Your task to perform on an android device: find which apps use the phone's location Image 0: 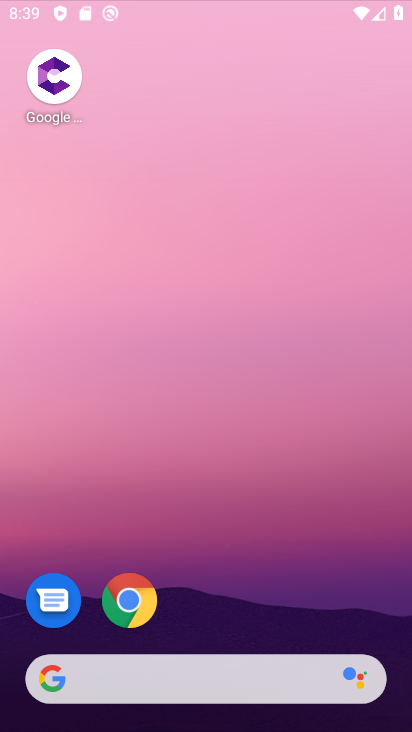
Step 0: press home button
Your task to perform on an android device: find which apps use the phone's location Image 1: 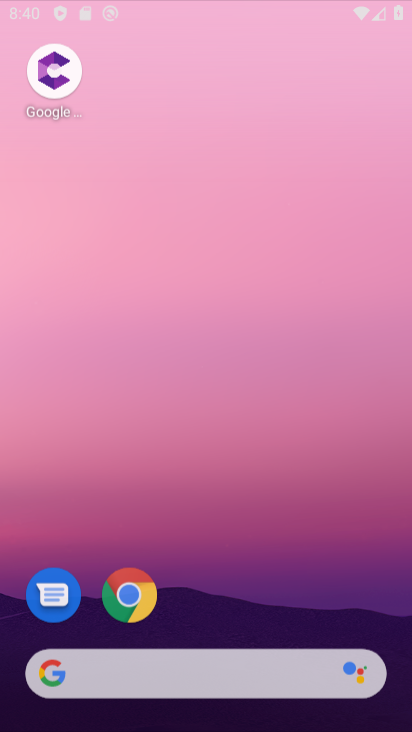
Step 1: click (134, 607)
Your task to perform on an android device: find which apps use the phone's location Image 2: 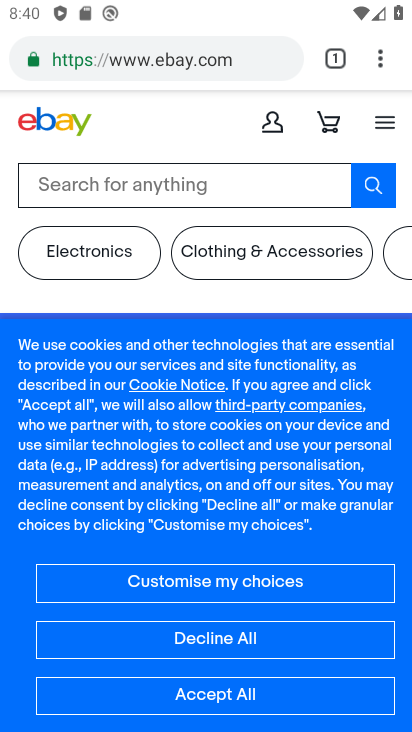
Step 2: press home button
Your task to perform on an android device: find which apps use the phone's location Image 3: 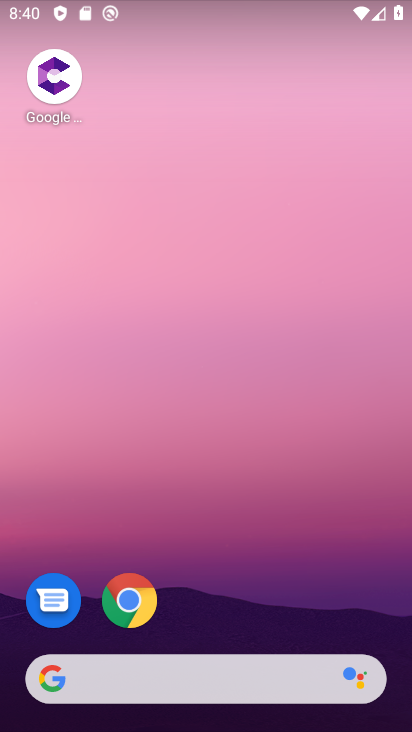
Step 3: drag from (194, 609) to (383, 40)
Your task to perform on an android device: find which apps use the phone's location Image 4: 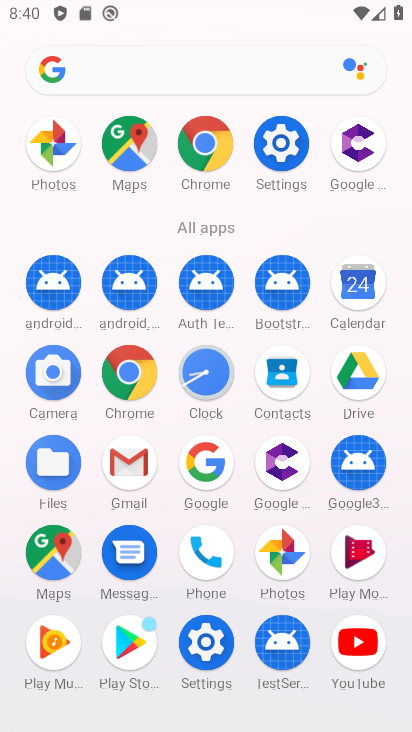
Step 4: click (276, 137)
Your task to perform on an android device: find which apps use the phone's location Image 5: 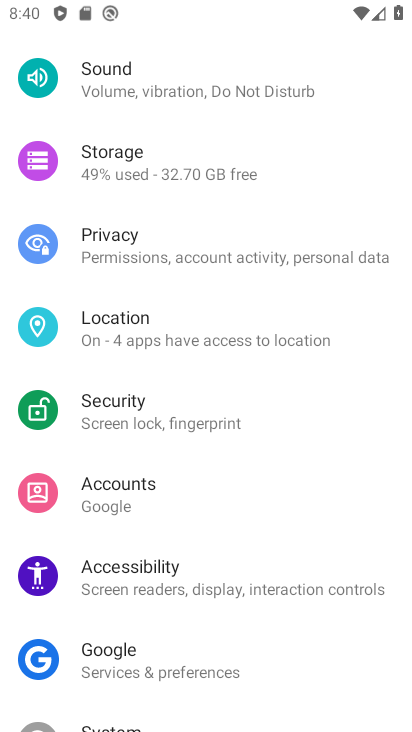
Step 5: click (106, 330)
Your task to perform on an android device: find which apps use the phone's location Image 6: 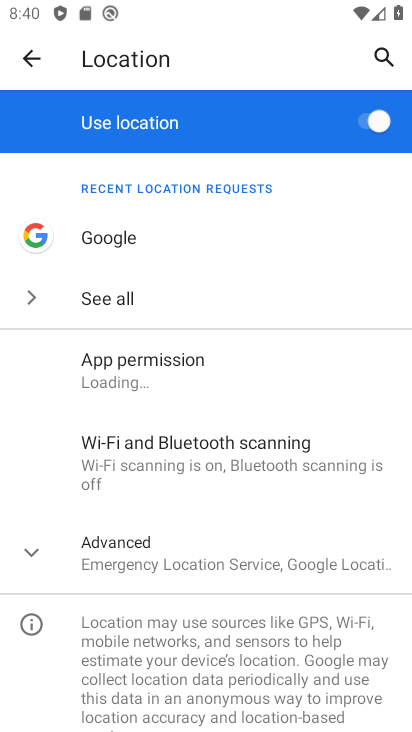
Step 6: click (119, 308)
Your task to perform on an android device: find which apps use the phone's location Image 7: 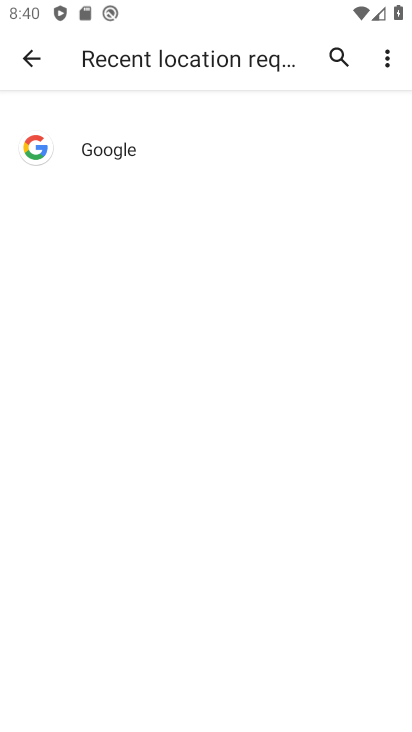
Step 7: task complete